Your task to perform on an android device: Open Android settings Image 0: 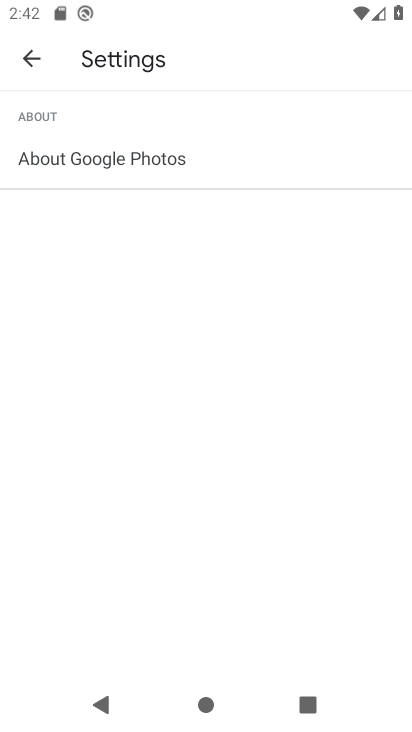
Step 0: press home button
Your task to perform on an android device: Open Android settings Image 1: 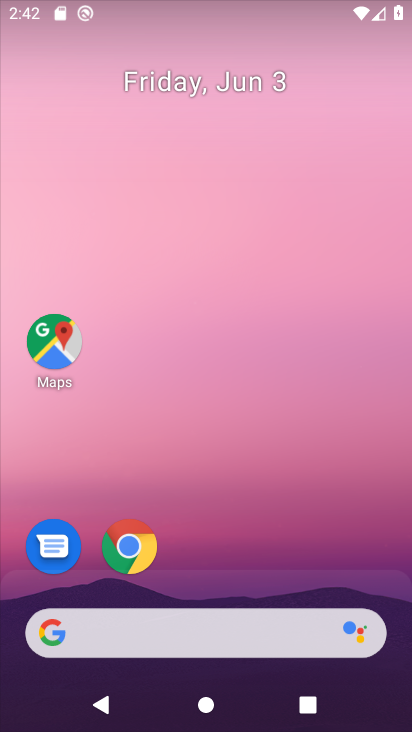
Step 1: drag from (384, 539) to (316, 132)
Your task to perform on an android device: Open Android settings Image 2: 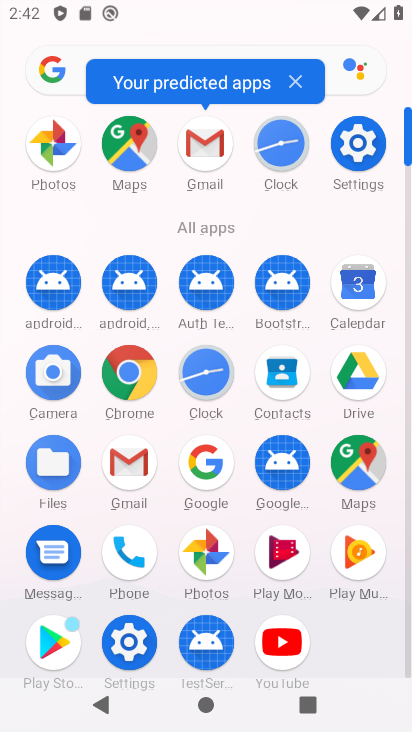
Step 2: click (354, 142)
Your task to perform on an android device: Open Android settings Image 3: 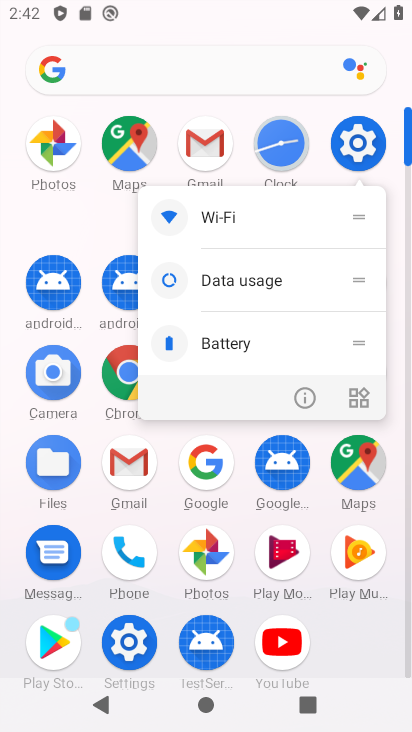
Step 3: click (354, 148)
Your task to perform on an android device: Open Android settings Image 4: 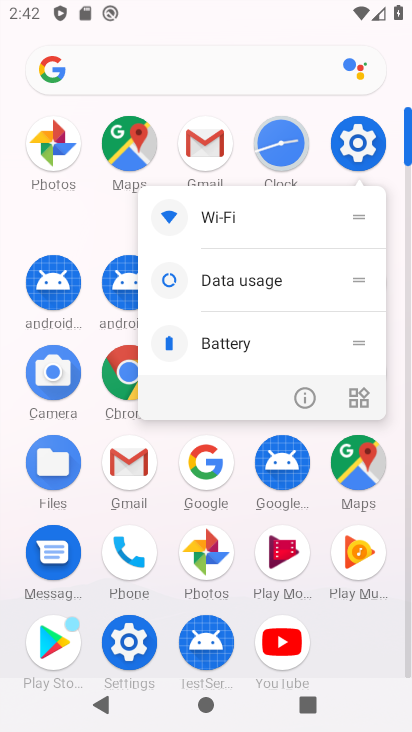
Step 4: click (354, 148)
Your task to perform on an android device: Open Android settings Image 5: 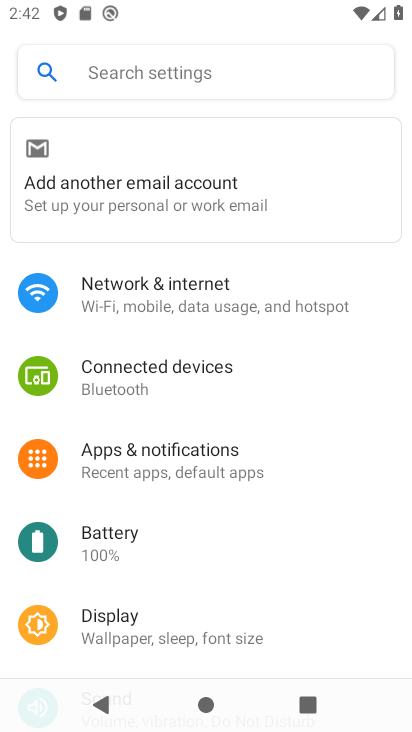
Step 5: drag from (301, 517) to (315, 246)
Your task to perform on an android device: Open Android settings Image 6: 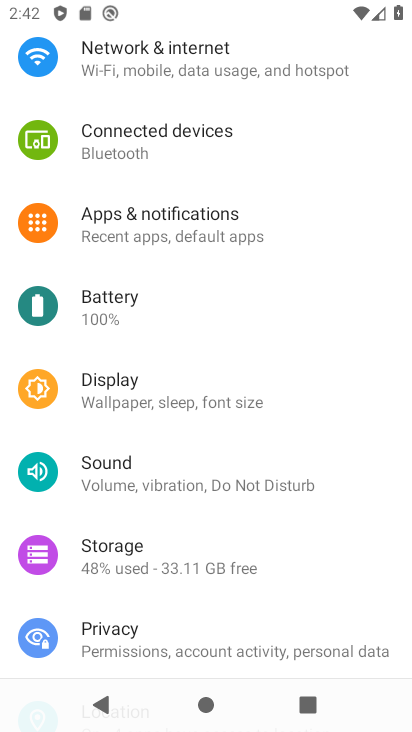
Step 6: drag from (260, 530) to (263, 210)
Your task to perform on an android device: Open Android settings Image 7: 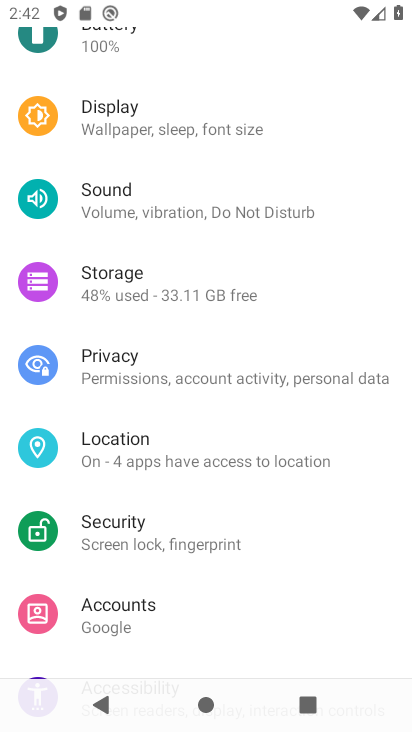
Step 7: drag from (233, 628) to (293, 220)
Your task to perform on an android device: Open Android settings Image 8: 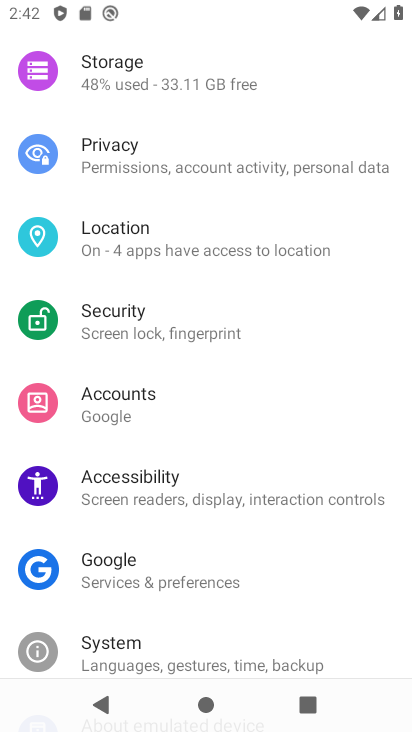
Step 8: drag from (276, 610) to (332, 191)
Your task to perform on an android device: Open Android settings Image 9: 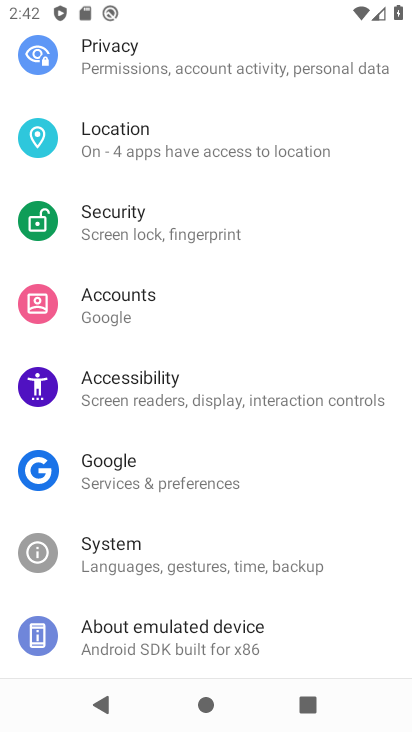
Step 9: drag from (196, 610) to (203, 272)
Your task to perform on an android device: Open Android settings Image 10: 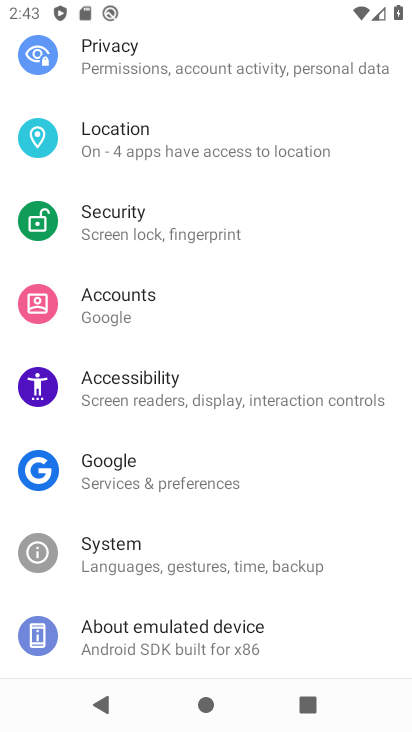
Step 10: click (201, 654)
Your task to perform on an android device: Open Android settings Image 11: 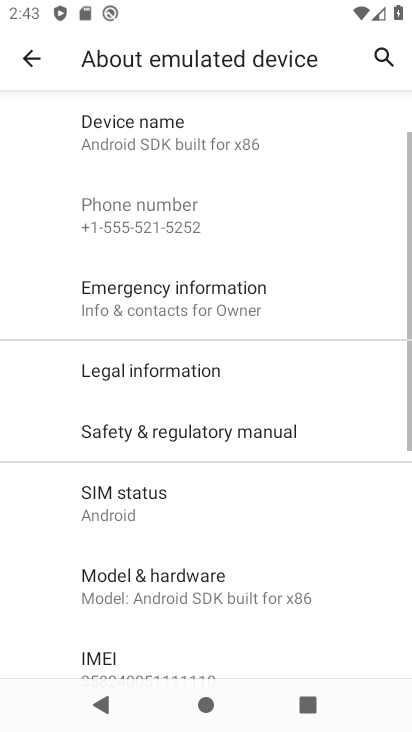
Step 11: drag from (198, 622) to (184, 232)
Your task to perform on an android device: Open Android settings Image 12: 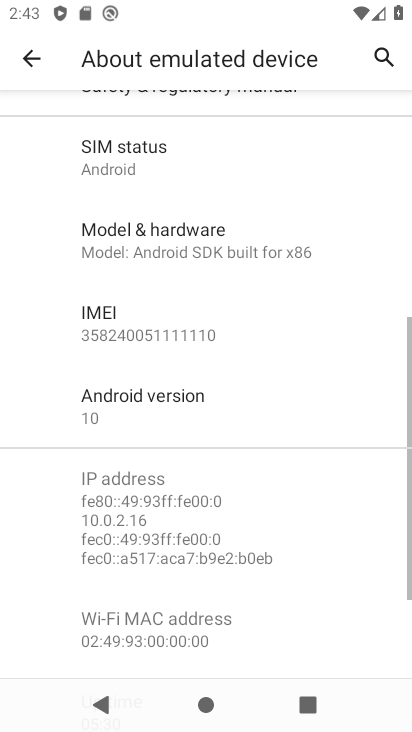
Step 12: drag from (230, 597) to (229, 332)
Your task to perform on an android device: Open Android settings Image 13: 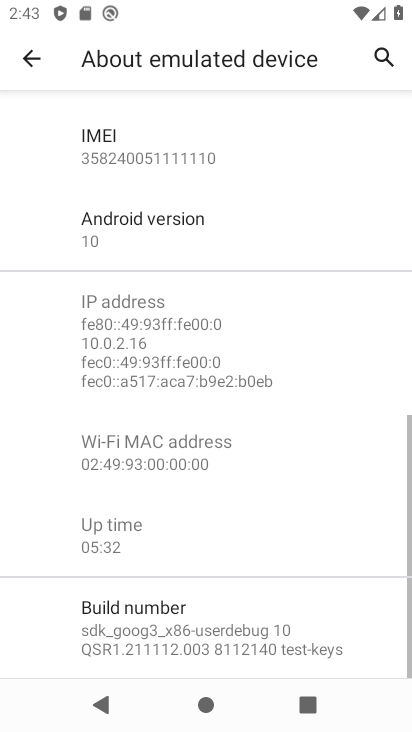
Step 13: click (166, 218)
Your task to perform on an android device: Open Android settings Image 14: 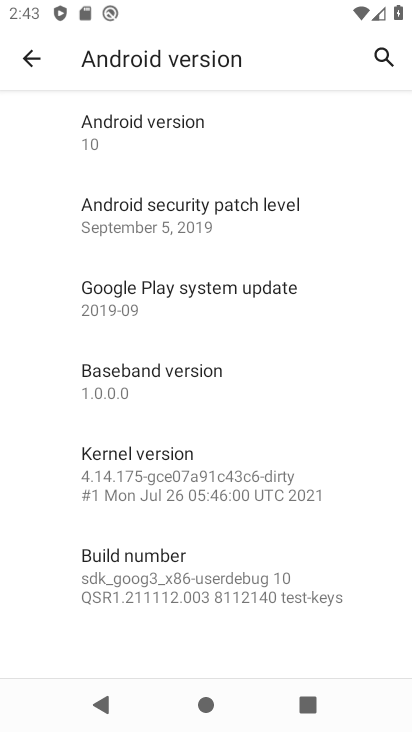
Step 14: task complete